Your task to perform on an android device: see tabs open on other devices in the chrome app Image 0: 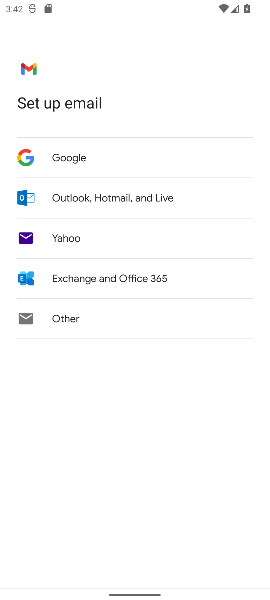
Step 0: task complete